Your task to perform on an android device: change timer sound Image 0: 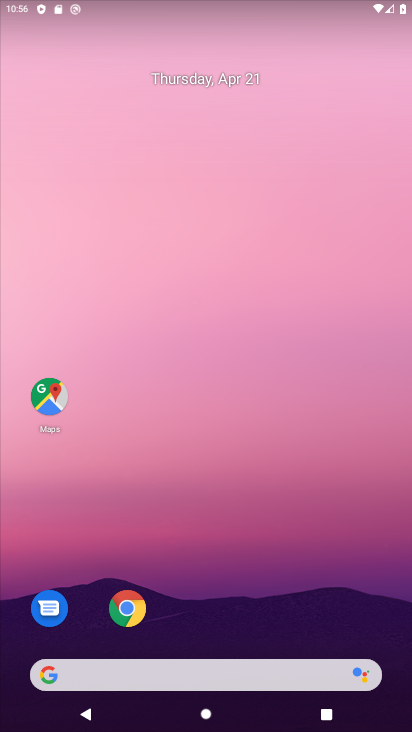
Step 0: drag from (219, 615) to (201, 111)
Your task to perform on an android device: change timer sound Image 1: 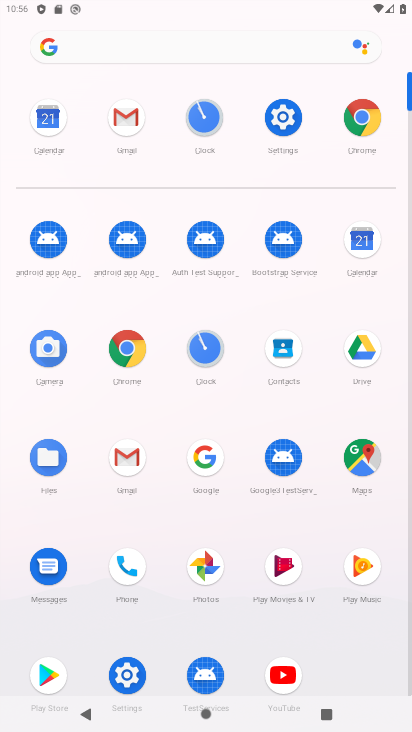
Step 1: click (200, 349)
Your task to perform on an android device: change timer sound Image 2: 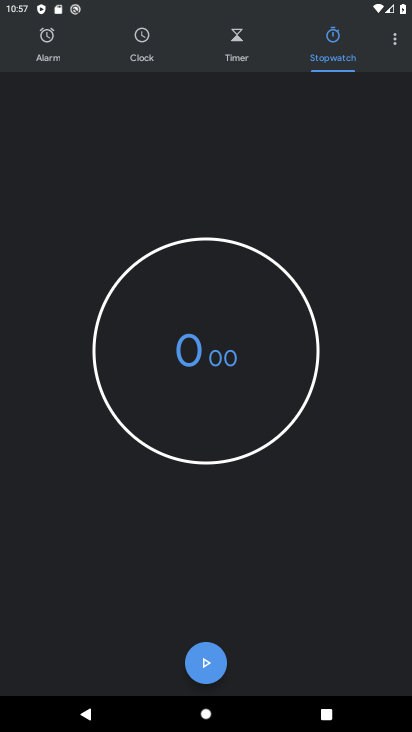
Step 2: click (393, 44)
Your task to perform on an android device: change timer sound Image 3: 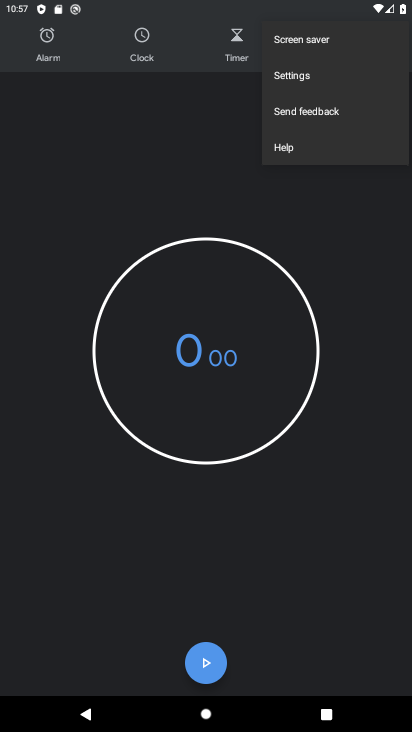
Step 3: click (293, 79)
Your task to perform on an android device: change timer sound Image 4: 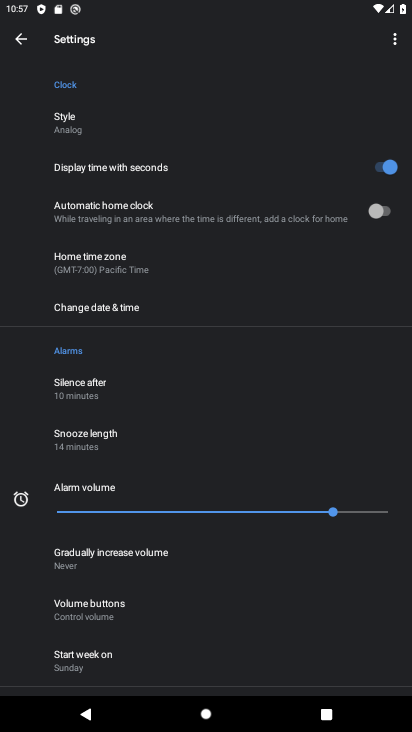
Step 4: drag from (145, 594) to (172, 233)
Your task to perform on an android device: change timer sound Image 5: 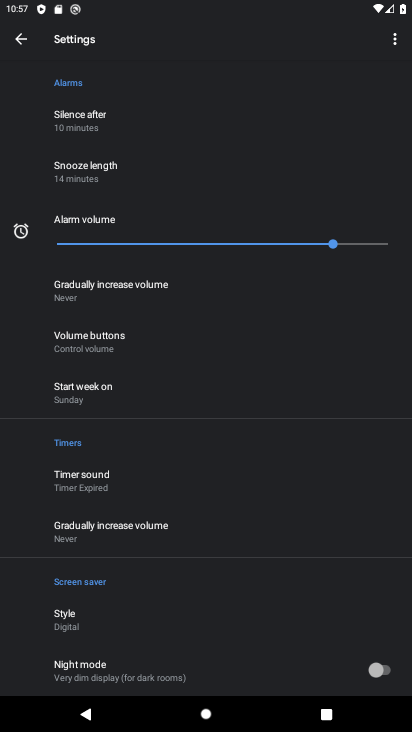
Step 5: click (77, 484)
Your task to perform on an android device: change timer sound Image 6: 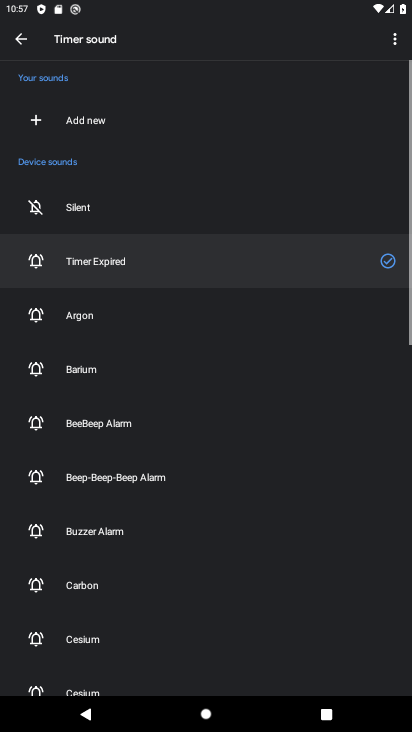
Step 6: click (78, 484)
Your task to perform on an android device: change timer sound Image 7: 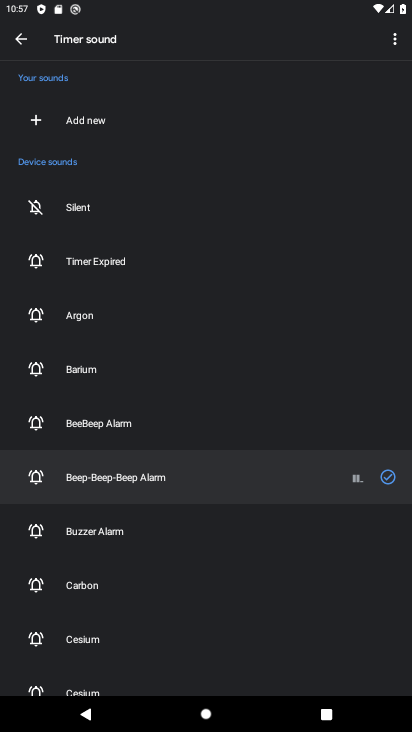
Step 7: task complete